Your task to perform on an android device: Open my contact list Image 0: 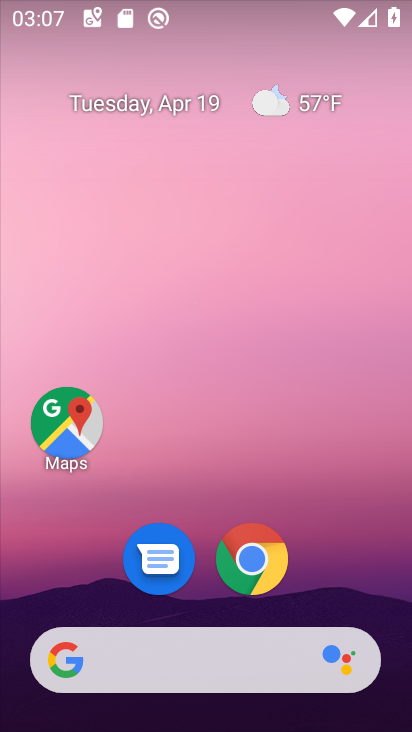
Step 0: drag from (210, 597) to (245, 62)
Your task to perform on an android device: Open my contact list Image 1: 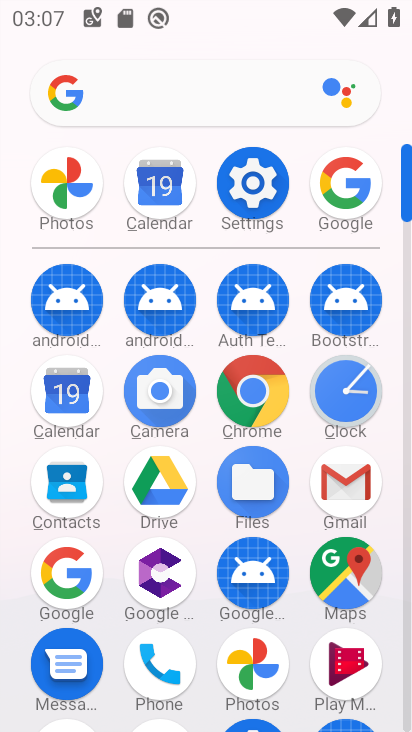
Step 1: click (62, 480)
Your task to perform on an android device: Open my contact list Image 2: 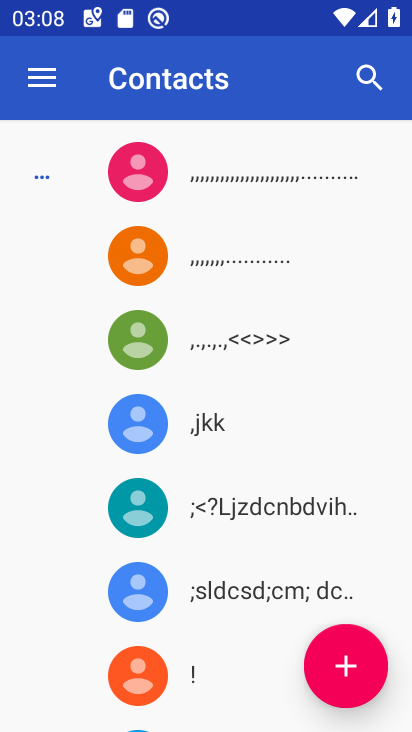
Step 2: click (351, 660)
Your task to perform on an android device: Open my contact list Image 3: 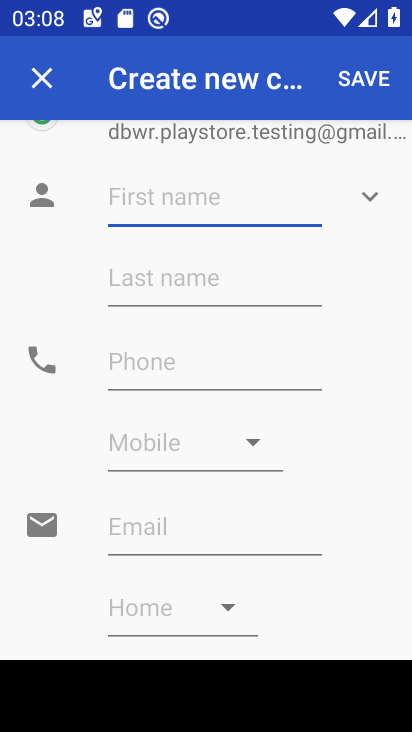
Step 3: type "nbfhfst"
Your task to perform on an android device: Open my contact list Image 4: 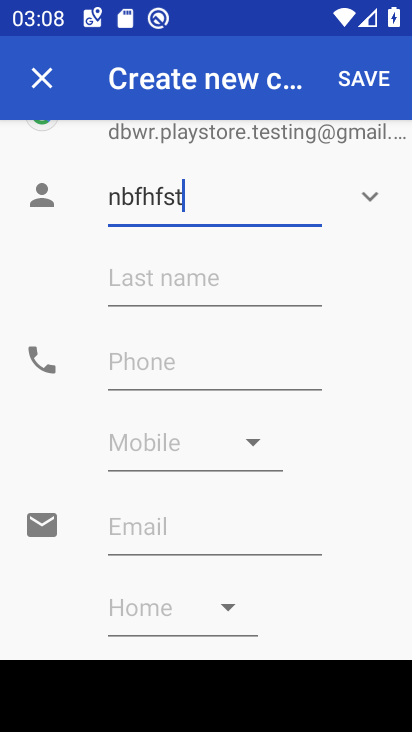
Step 4: click (358, 79)
Your task to perform on an android device: Open my contact list Image 5: 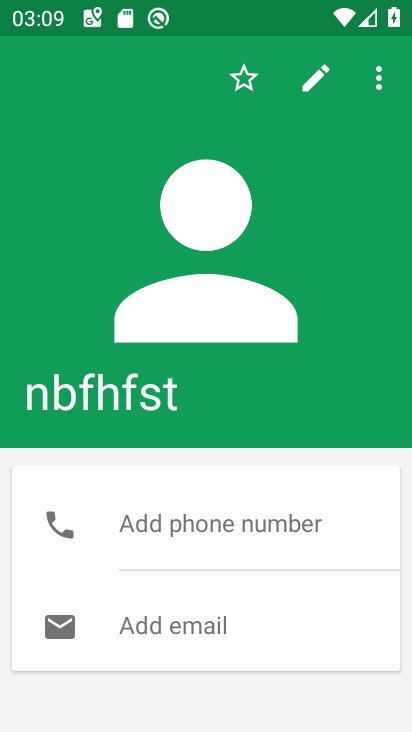
Step 5: task complete